Your task to perform on an android device: Go to display settings Image 0: 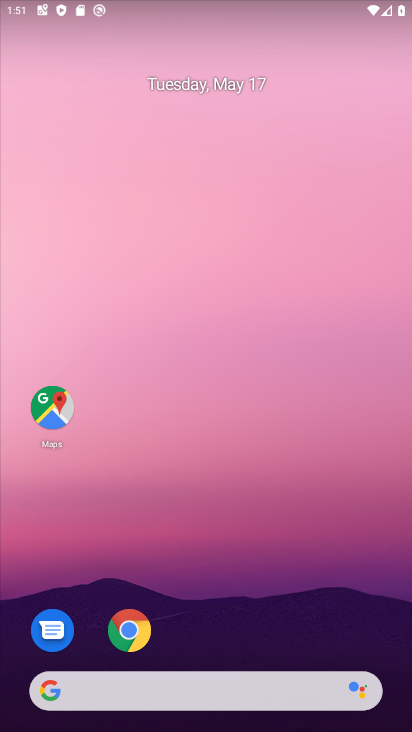
Step 0: drag from (331, 620) to (293, 296)
Your task to perform on an android device: Go to display settings Image 1: 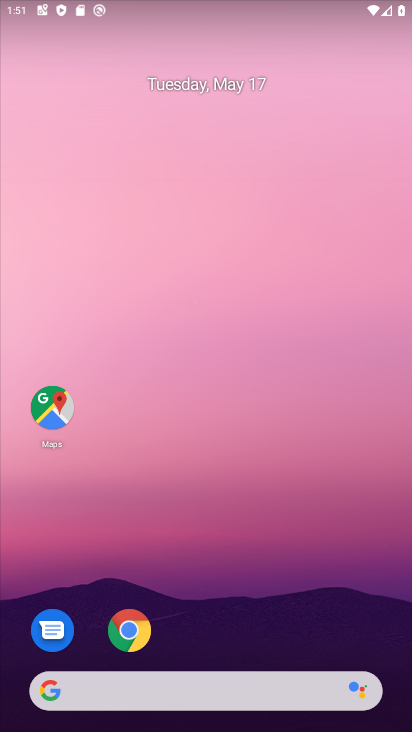
Step 1: drag from (352, 648) to (347, 200)
Your task to perform on an android device: Go to display settings Image 2: 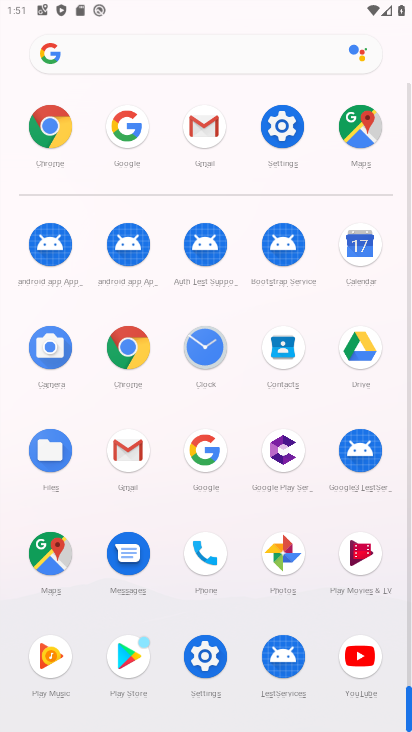
Step 2: click (282, 140)
Your task to perform on an android device: Go to display settings Image 3: 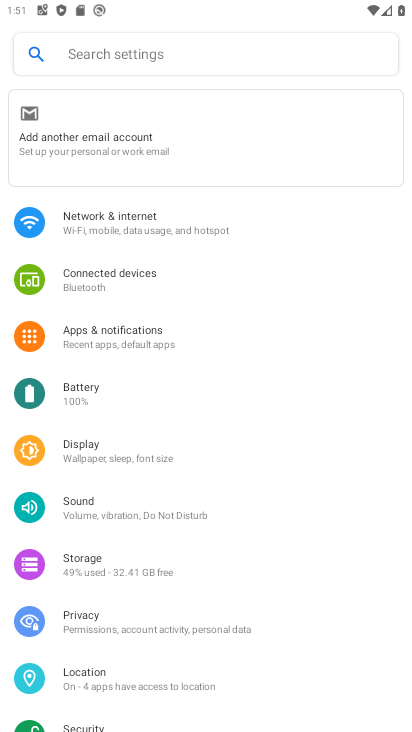
Step 3: click (86, 441)
Your task to perform on an android device: Go to display settings Image 4: 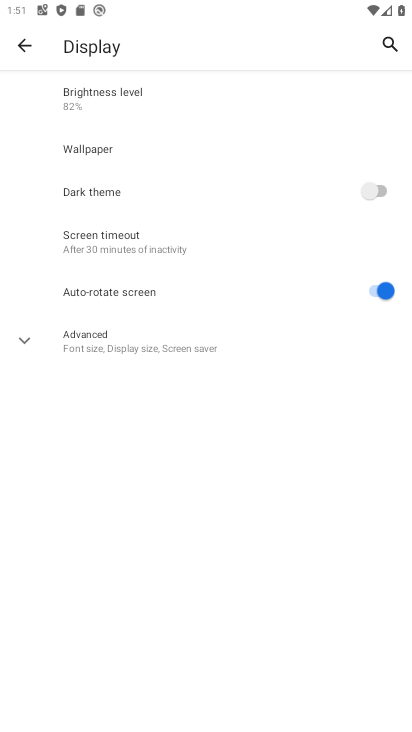
Step 4: click (26, 341)
Your task to perform on an android device: Go to display settings Image 5: 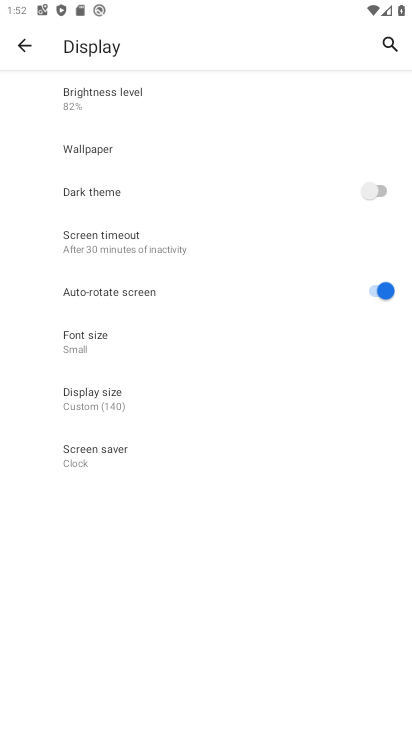
Step 5: task complete